Your task to perform on an android device: allow notifications from all sites in the chrome app Image 0: 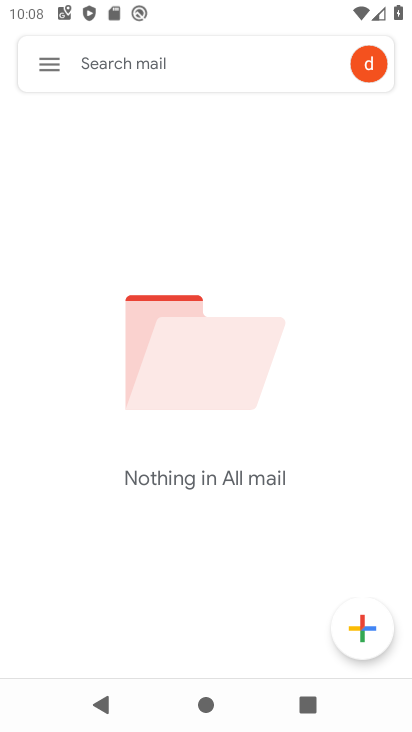
Step 0: press back button
Your task to perform on an android device: allow notifications from all sites in the chrome app Image 1: 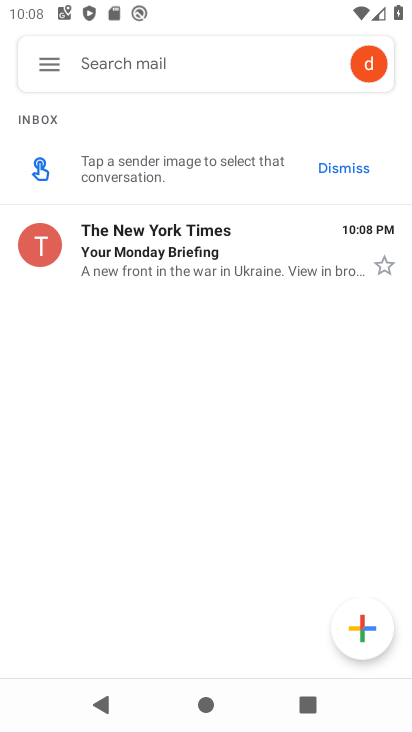
Step 1: press home button
Your task to perform on an android device: allow notifications from all sites in the chrome app Image 2: 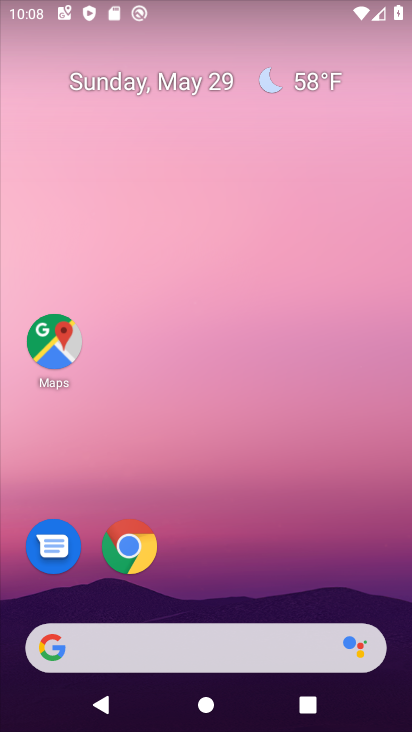
Step 2: click (139, 550)
Your task to perform on an android device: allow notifications from all sites in the chrome app Image 3: 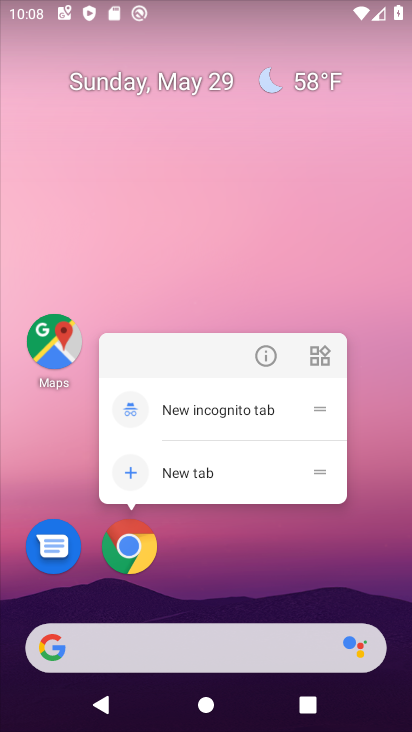
Step 3: click (273, 356)
Your task to perform on an android device: allow notifications from all sites in the chrome app Image 4: 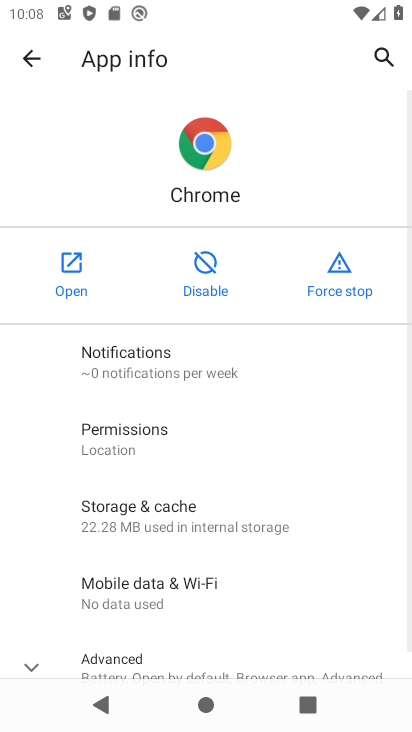
Step 4: drag from (350, 599) to (329, 421)
Your task to perform on an android device: allow notifications from all sites in the chrome app Image 5: 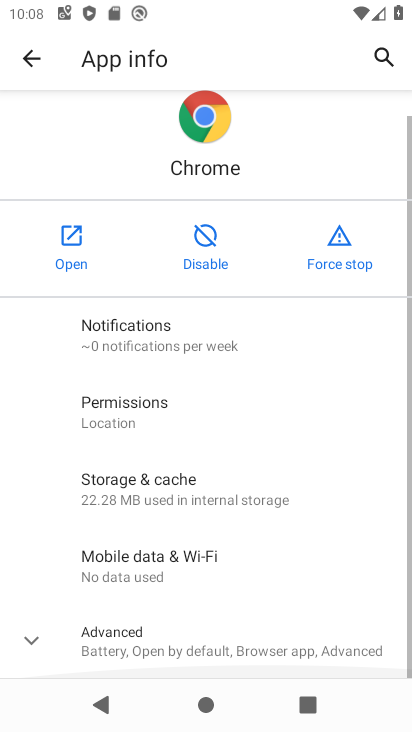
Step 5: click (267, 347)
Your task to perform on an android device: allow notifications from all sites in the chrome app Image 6: 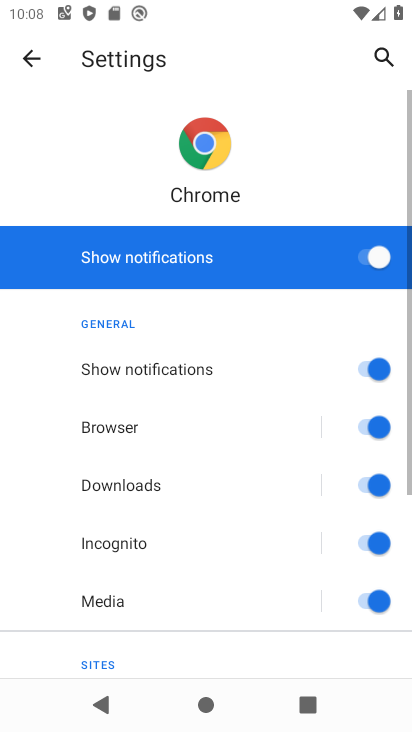
Step 6: task complete